Your task to perform on an android device: Search for Mexican restaurants on Maps Image 0: 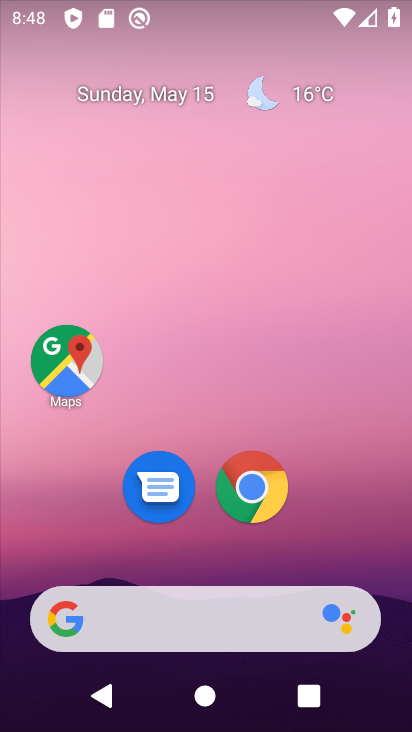
Step 0: click (67, 363)
Your task to perform on an android device: Search for Mexican restaurants on Maps Image 1: 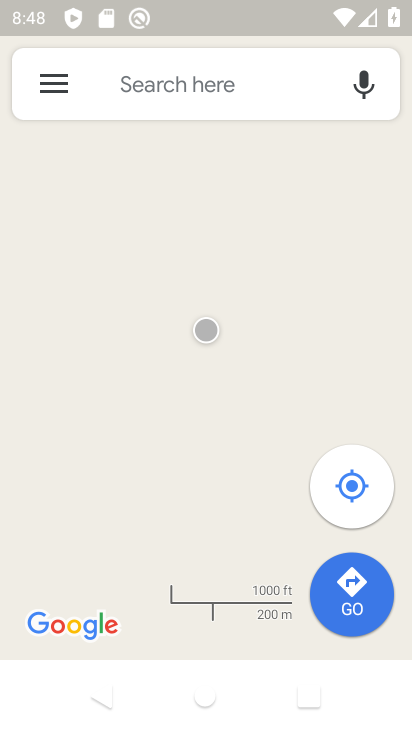
Step 1: click (176, 84)
Your task to perform on an android device: Search for Mexican restaurants on Maps Image 2: 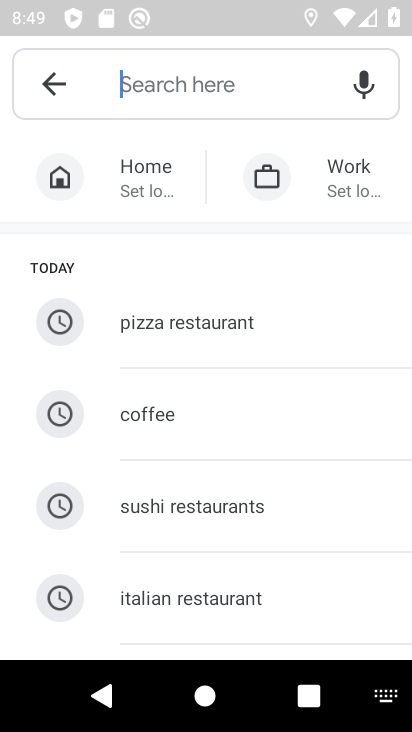
Step 2: type "mexican restaurants"
Your task to perform on an android device: Search for Mexican restaurants on Maps Image 3: 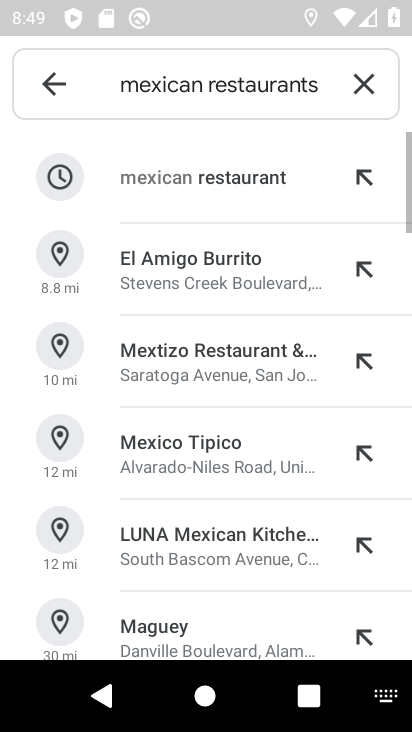
Step 3: click (163, 174)
Your task to perform on an android device: Search for Mexican restaurants on Maps Image 4: 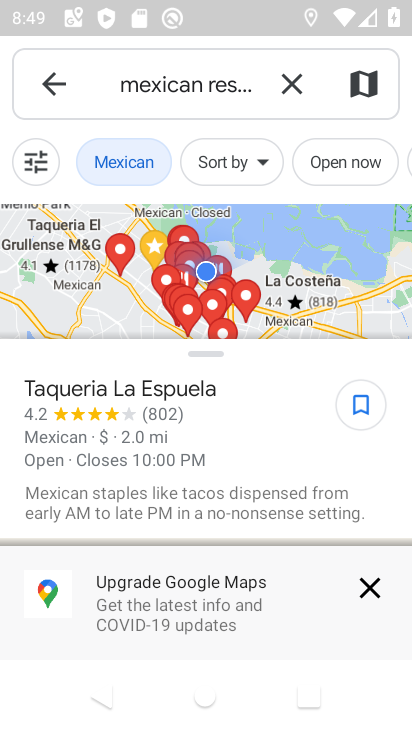
Step 4: task complete